Your task to perform on an android device: Open sound settings Image 0: 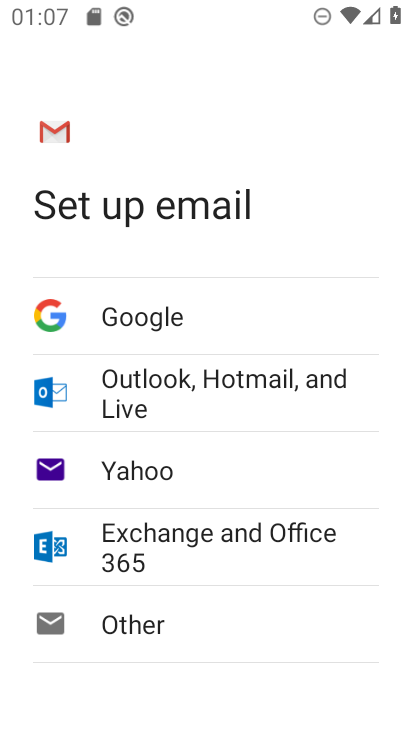
Step 0: press home button
Your task to perform on an android device: Open sound settings Image 1: 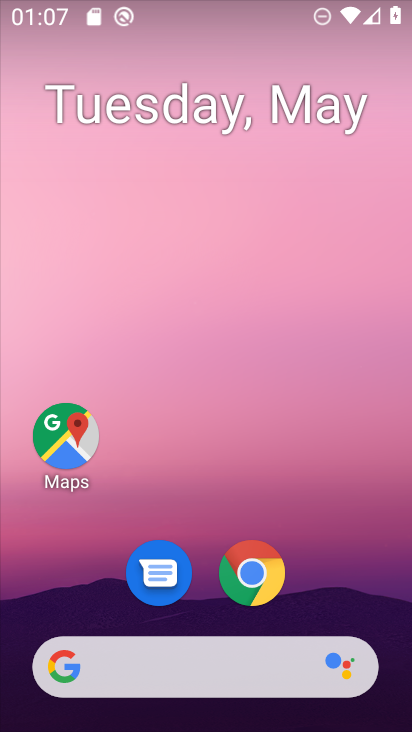
Step 1: drag from (364, 568) to (230, 35)
Your task to perform on an android device: Open sound settings Image 2: 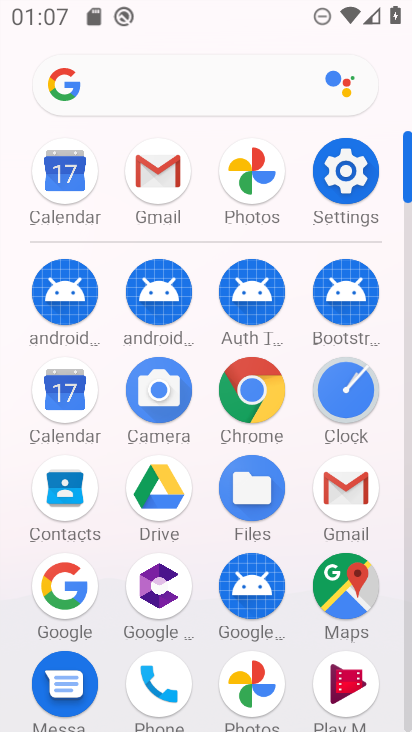
Step 2: click (345, 175)
Your task to perform on an android device: Open sound settings Image 3: 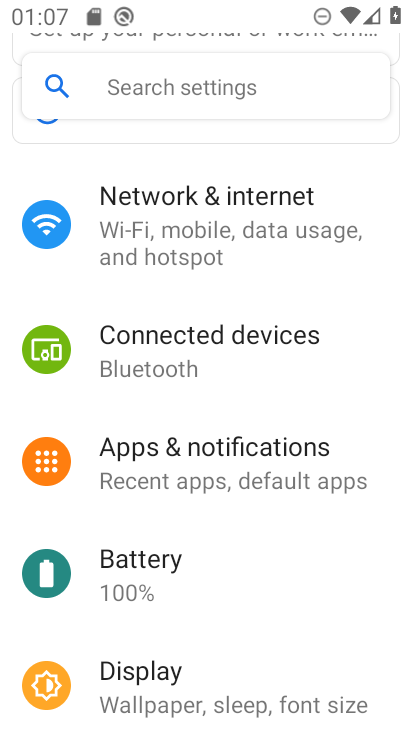
Step 3: drag from (235, 590) to (219, 178)
Your task to perform on an android device: Open sound settings Image 4: 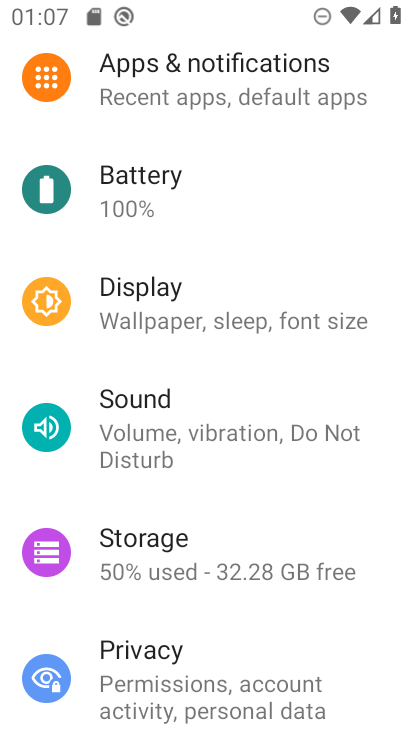
Step 4: click (189, 427)
Your task to perform on an android device: Open sound settings Image 5: 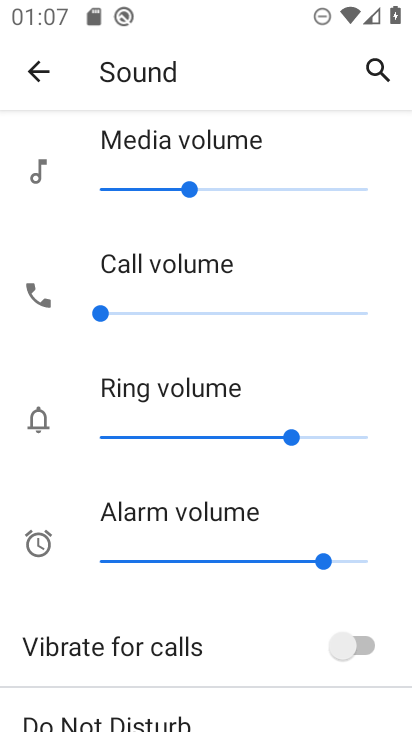
Step 5: task complete